Your task to perform on an android device: delete browsing data in the chrome app Image 0: 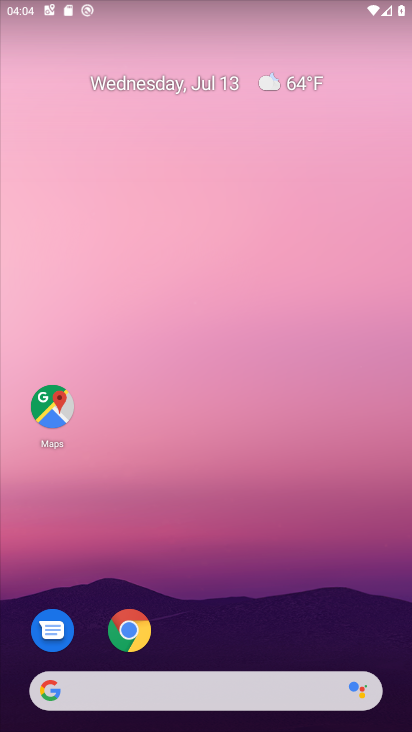
Step 0: click (126, 625)
Your task to perform on an android device: delete browsing data in the chrome app Image 1: 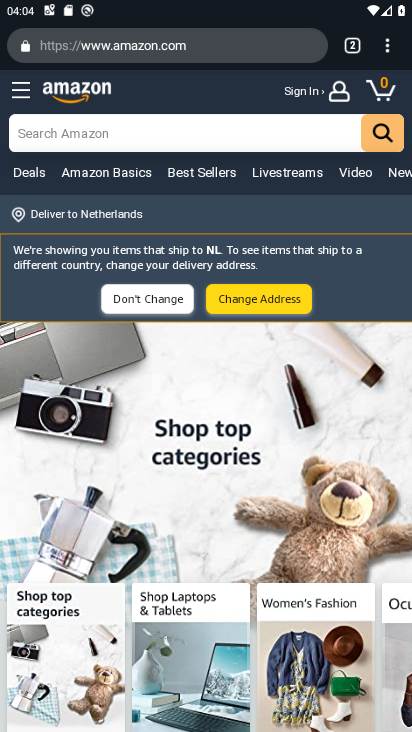
Step 1: click (392, 49)
Your task to perform on an android device: delete browsing data in the chrome app Image 2: 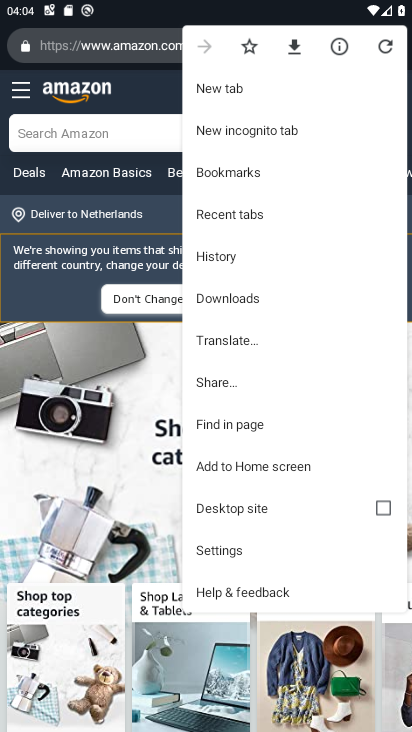
Step 2: click (248, 255)
Your task to perform on an android device: delete browsing data in the chrome app Image 3: 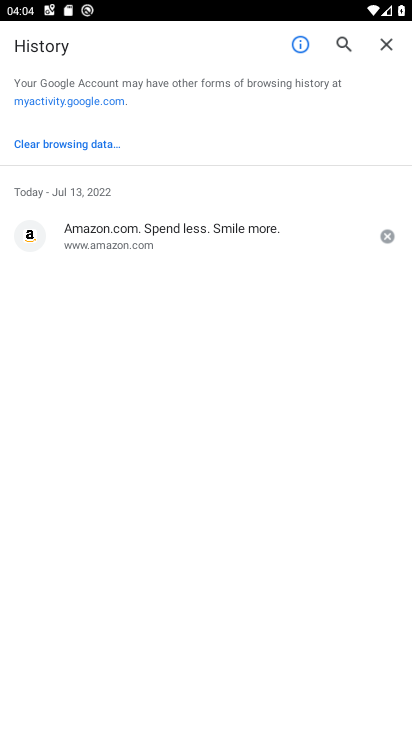
Step 3: click (85, 152)
Your task to perform on an android device: delete browsing data in the chrome app Image 4: 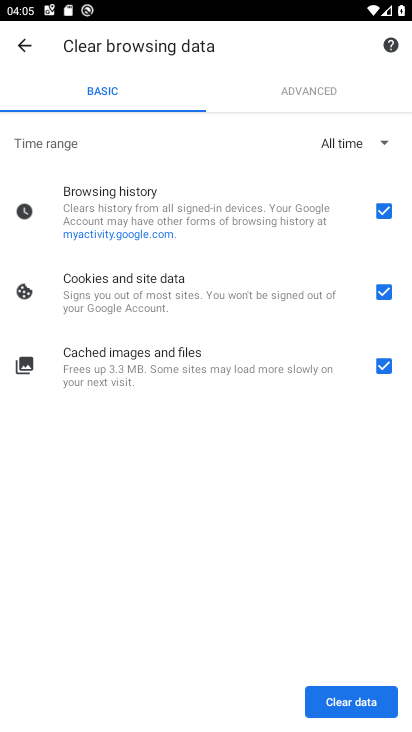
Step 4: click (384, 294)
Your task to perform on an android device: delete browsing data in the chrome app Image 5: 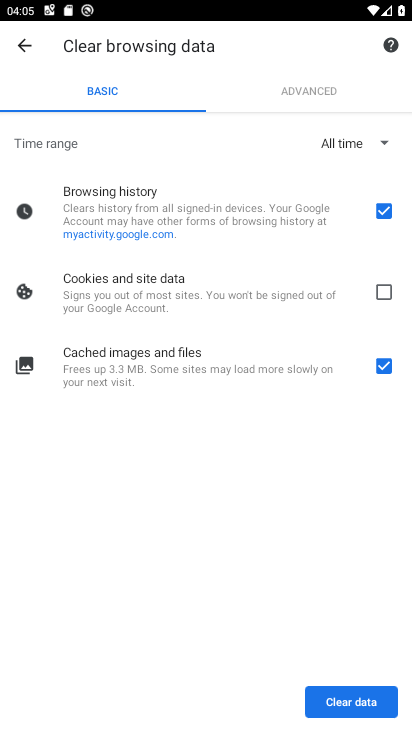
Step 5: click (385, 367)
Your task to perform on an android device: delete browsing data in the chrome app Image 6: 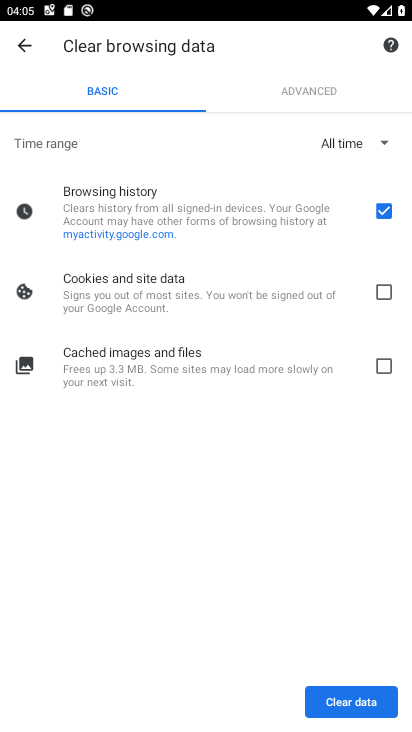
Step 6: click (340, 699)
Your task to perform on an android device: delete browsing data in the chrome app Image 7: 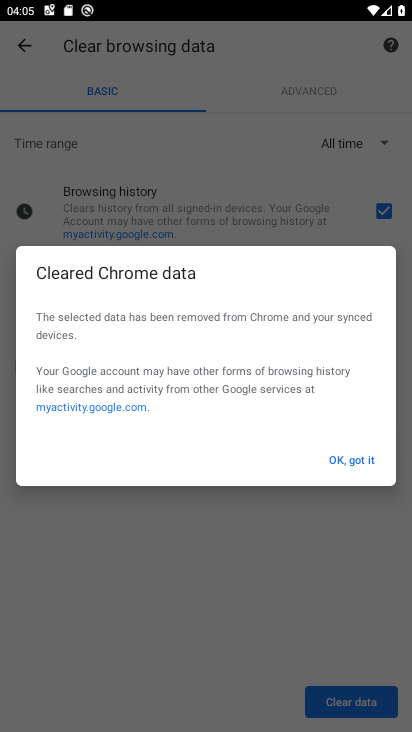
Step 7: click (363, 455)
Your task to perform on an android device: delete browsing data in the chrome app Image 8: 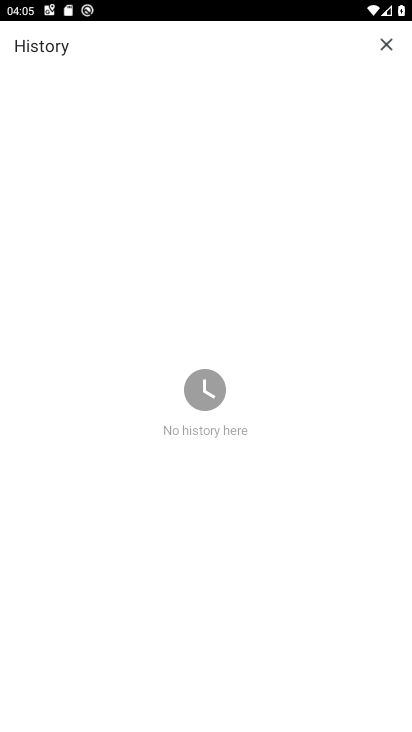
Step 8: task complete